Your task to perform on an android device: open sync settings in chrome Image 0: 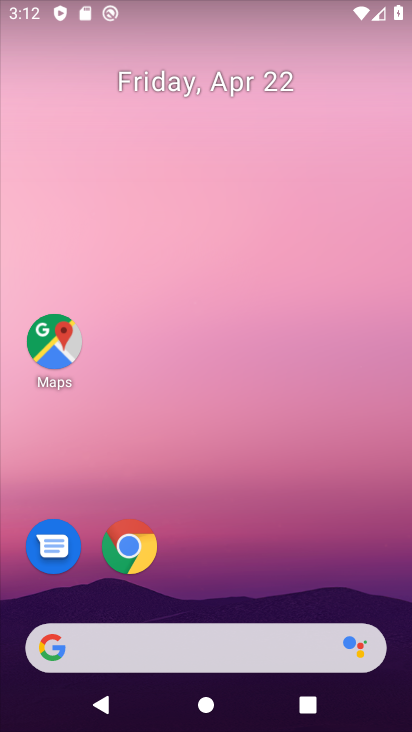
Step 0: click (134, 555)
Your task to perform on an android device: open sync settings in chrome Image 1: 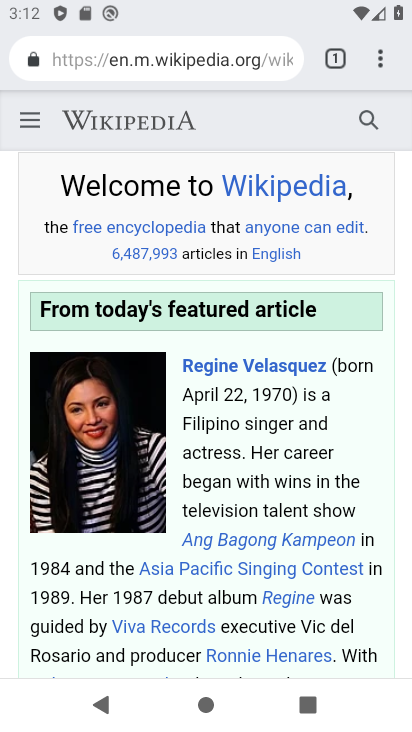
Step 1: click (386, 57)
Your task to perform on an android device: open sync settings in chrome Image 2: 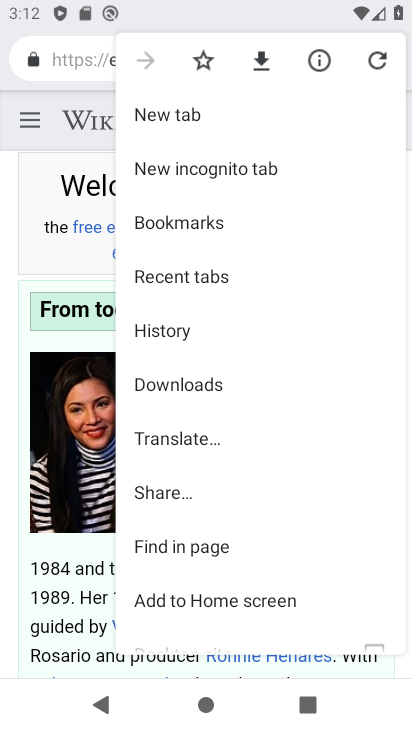
Step 2: drag from (228, 566) to (241, 183)
Your task to perform on an android device: open sync settings in chrome Image 3: 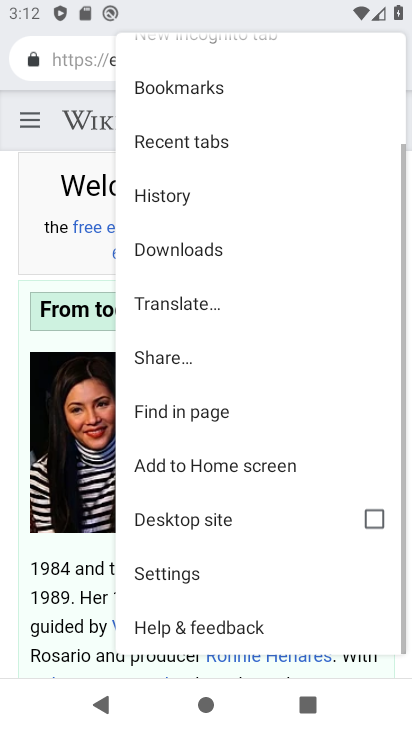
Step 3: click (196, 571)
Your task to perform on an android device: open sync settings in chrome Image 4: 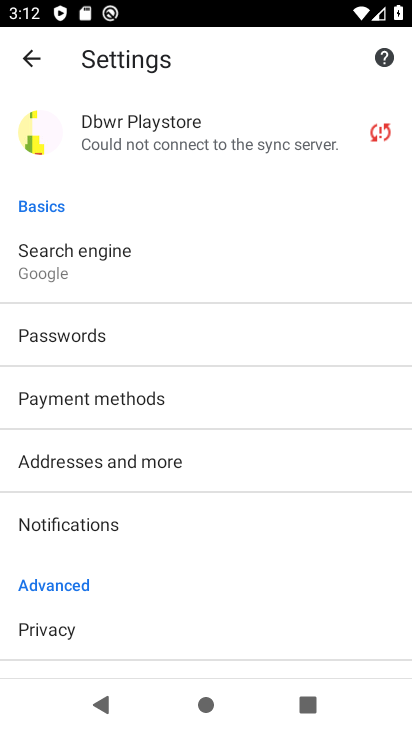
Step 4: drag from (193, 547) to (184, 234)
Your task to perform on an android device: open sync settings in chrome Image 5: 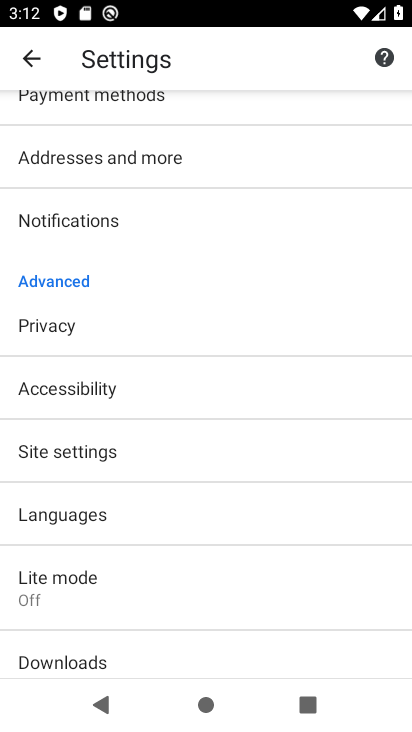
Step 5: click (99, 445)
Your task to perform on an android device: open sync settings in chrome Image 6: 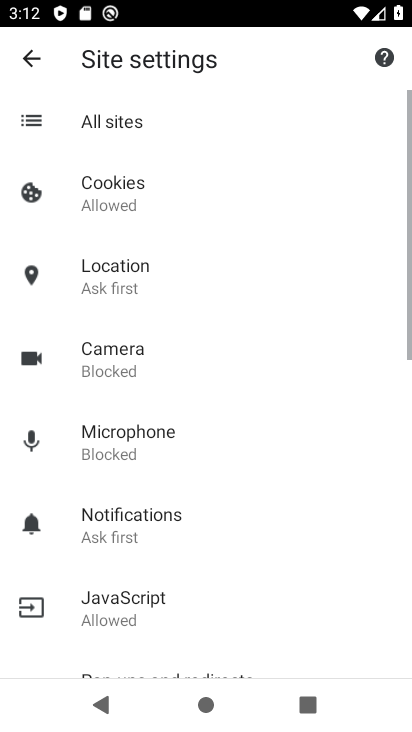
Step 6: drag from (198, 587) to (220, 236)
Your task to perform on an android device: open sync settings in chrome Image 7: 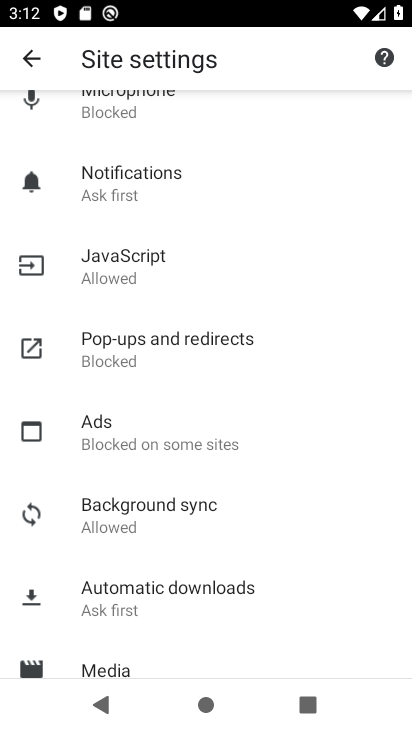
Step 7: click (168, 531)
Your task to perform on an android device: open sync settings in chrome Image 8: 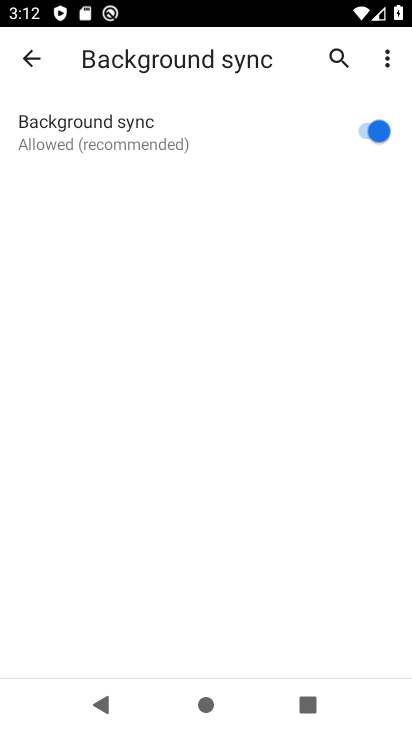
Step 8: task complete